Your task to perform on an android device: Go to notification settings Image 0: 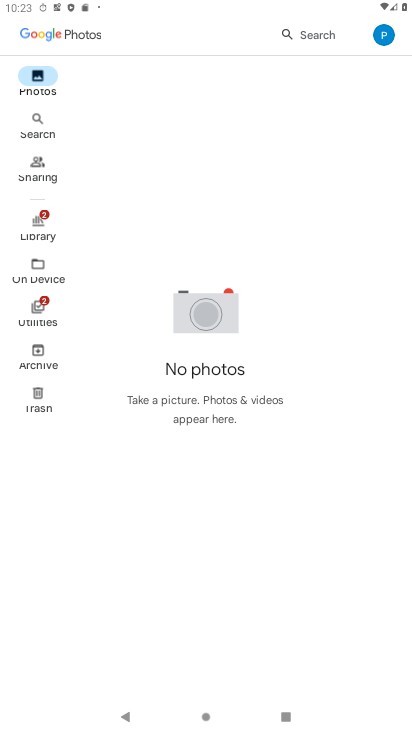
Step 0: press home button
Your task to perform on an android device: Go to notification settings Image 1: 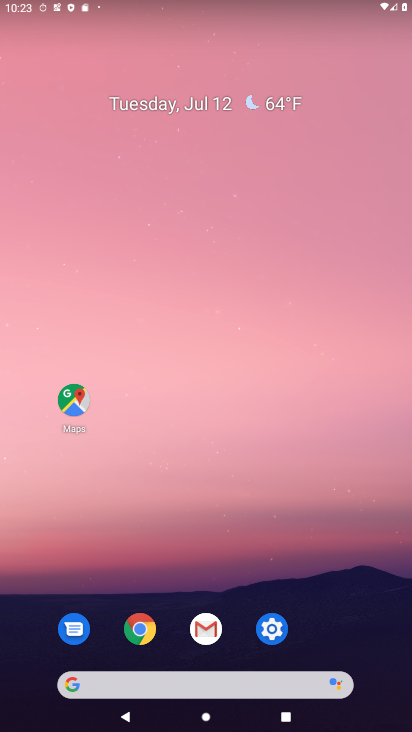
Step 1: click (269, 626)
Your task to perform on an android device: Go to notification settings Image 2: 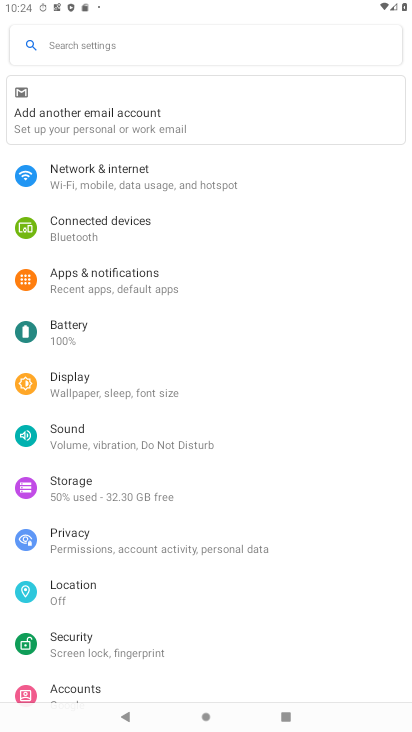
Step 2: click (108, 42)
Your task to perform on an android device: Go to notification settings Image 3: 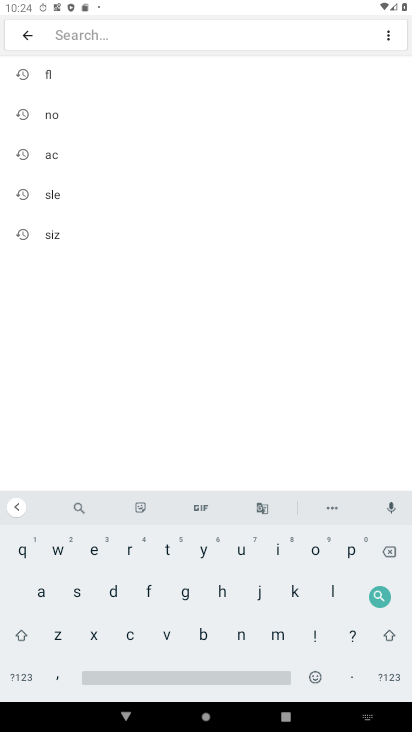
Step 3: click (79, 113)
Your task to perform on an android device: Go to notification settings Image 4: 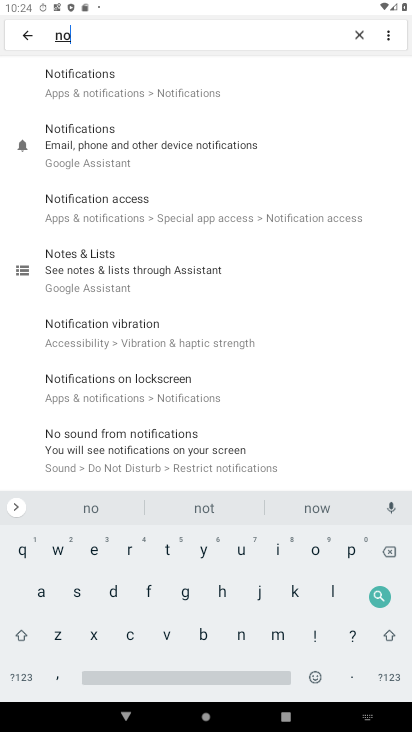
Step 4: click (96, 97)
Your task to perform on an android device: Go to notification settings Image 5: 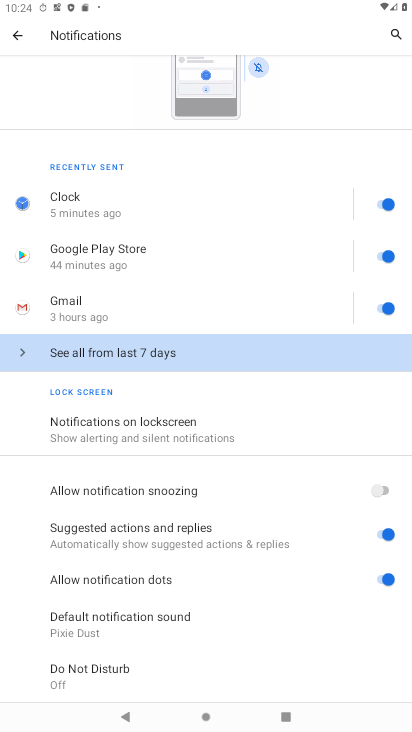
Step 5: click (120, 433)
Your task to perform on an android device: Go to notification settings Image 6: 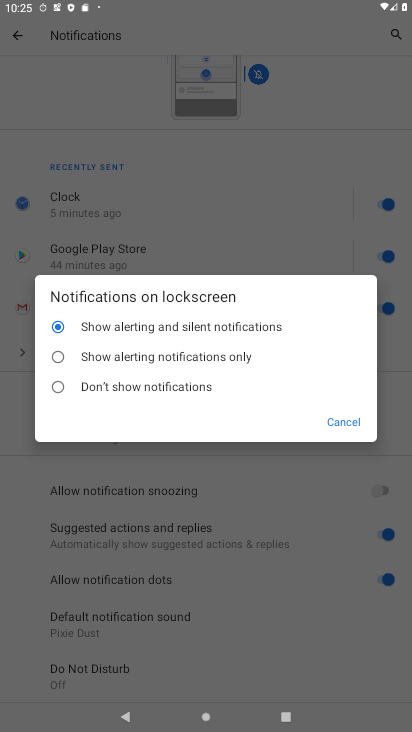
Step 6: task complete